Your task to perform on an android device: Empty the shopping cart on ebay.com. Search for usb-a to usb-b on ebay.com, select the first entry, and add it to the cart. Image 0: 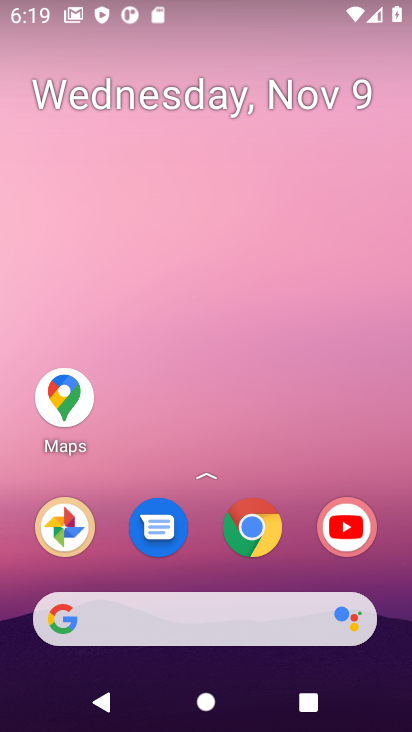
Step 0: click (257, 522)
Your task to perform on an android device: Empty the shopping cart on ebay.com. Search for usb-a to usb-b on ebay.com, select the first entry, and add it to the cart. Image 1: 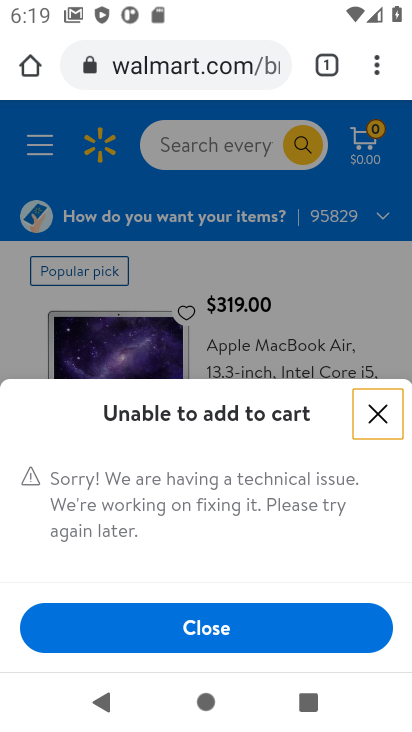
Step 1: click (190, 57)
Your task to perform on an android device: Empty the shopping cart on ebay.com. Search for usb-a to usb-b on ebay.com, select the first entry, and add it to the cart. Image 2: 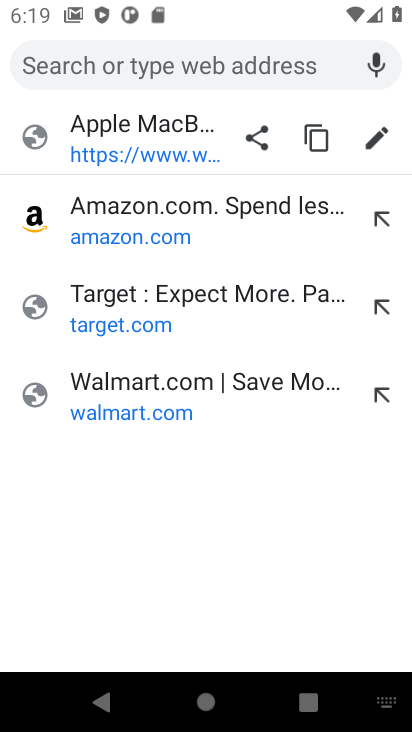
Step 2: type "ebay.com"
Your task to perform on an android device: Empty the shopping cart on ebay.com. Search for usb-a to usb-b on ebay.com, select the first entry, and add it to the cart. Image 3: 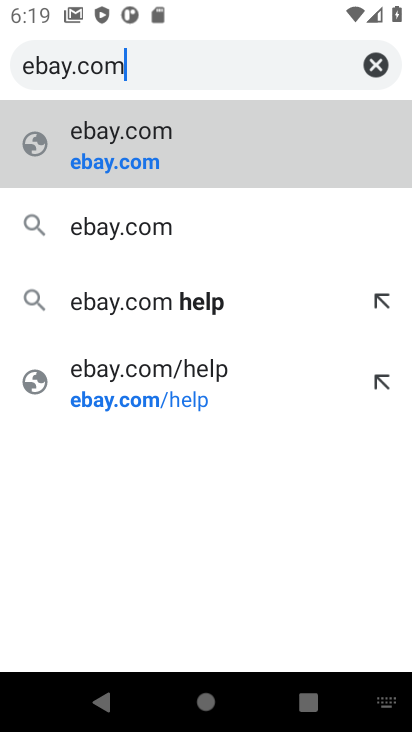
Step 3: click (100, 159)
Your task to perform on an android device: Empty the shopping cart on ebay.com. Search for usb-a to usb-b on ebay.com, select the first entry, and add it to the cart. Image 4: 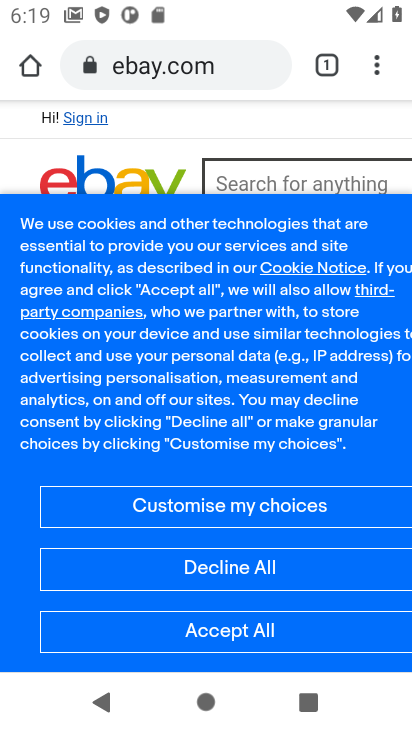
Step 4: drag from (187, 232) to (162, 382)
Your task to perform on an android device: Empty the shopping cart on ebay.com. Search for usb-a to usb-b on ebay.com, select the first entry, and add it to the cart. Image 5: 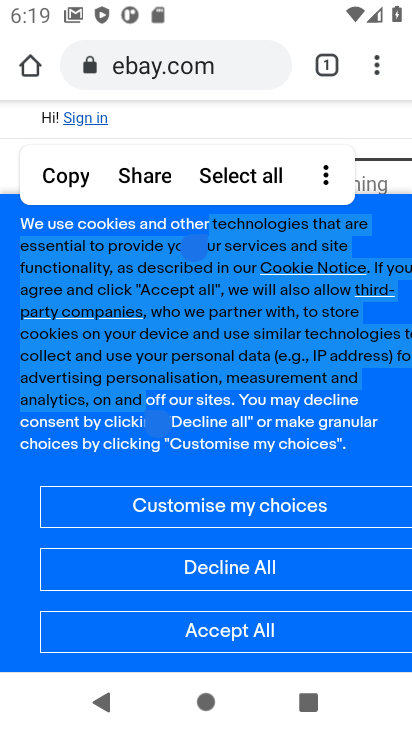
Step 5: click (368, 133)
Your task to perform on an android device: Empty the shopping cart on ebay.com. Search for usb-a to usb-b on ebay.com, select the first entry, and add it to the cart. Image 6: 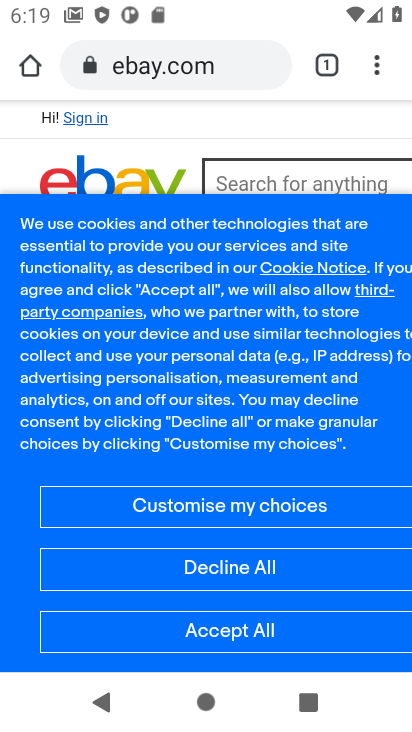
Step 6: drag from (368, 133) to (19, 130)
Your task to perform on an android device: Empty the shopping cart on ebay.com. Search for usb-a to usb-b on ebay.com, select the first entry, and add it to the cart. Image 7: 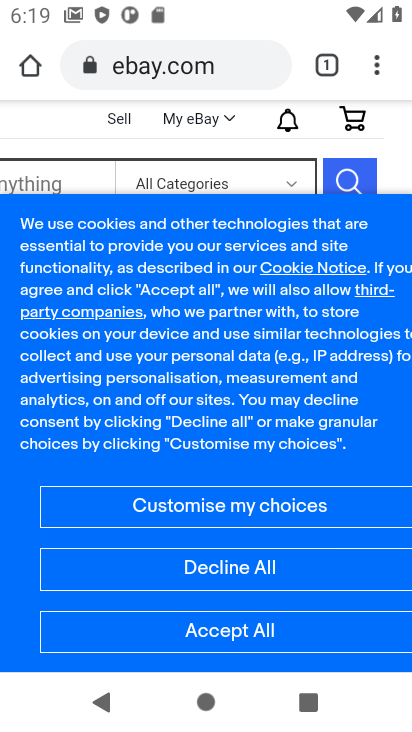
Step 7: click (355, 123)
Your task to perform on an android device: Empty the shopping cart on ebay.com. Search for usb-a to usb-b on ebay.com, select the first entry, and add it to the cart. Image 8: 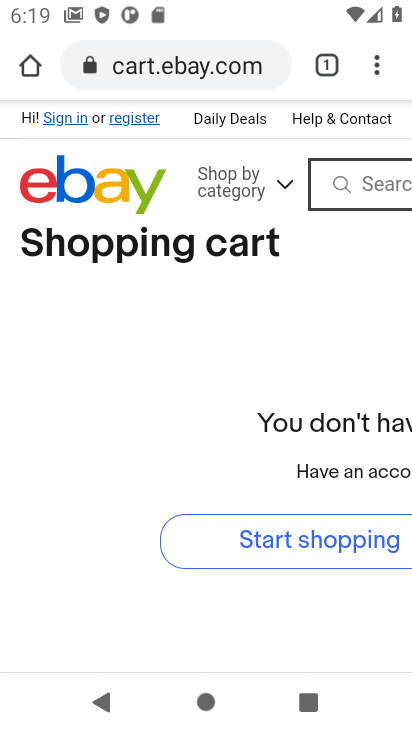
Step 8: drag from (242, 356) to (6, 407)
Your task to perform on an android device: Empty the shopping cart on ebay.com. Search for usb-a to usb-b on ebay.com, select the first entry, and add it to the cart. Image 9: 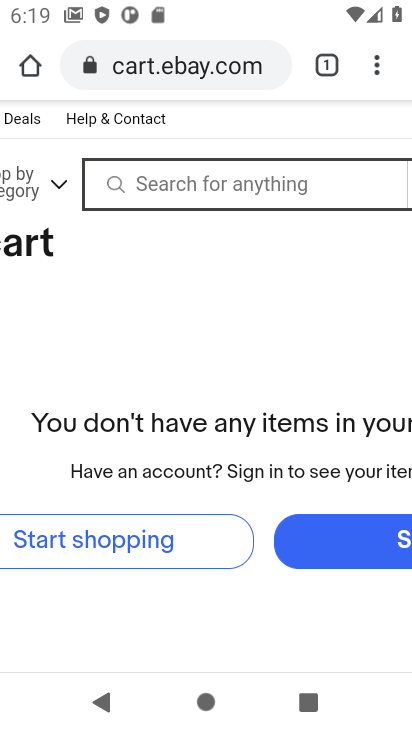
Step 9: click (202, 182)
Your task to perform on an android device: Empty the shopping cart on ebay.com. Search for usb-a to usb-b on ebay.com, select the first entry, and add it to the cart. Image 10: 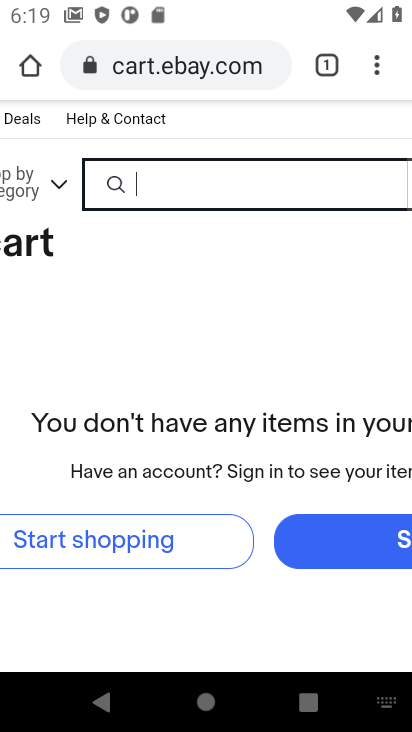
Step 10: type "usb-a to usb-b"
Your task to perform on an android device: Empty the shopping cart on ebay.com. Search for usb-a to usb-b on ebay.com, select the first entry, and add it to the cart. Image 11: 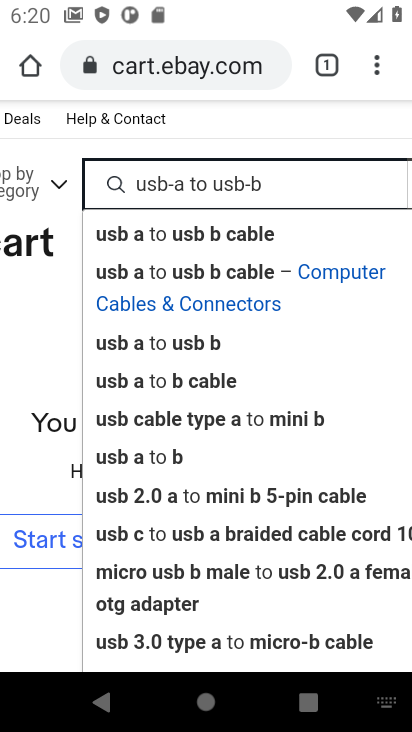
Step 11: click (198, 344)
Your task to perform on an android device: Empty the shopping cart on ebay.com. Search for usb-a to usb-b on ebay.com, select the first entry, and add it to the cart. Image 12: 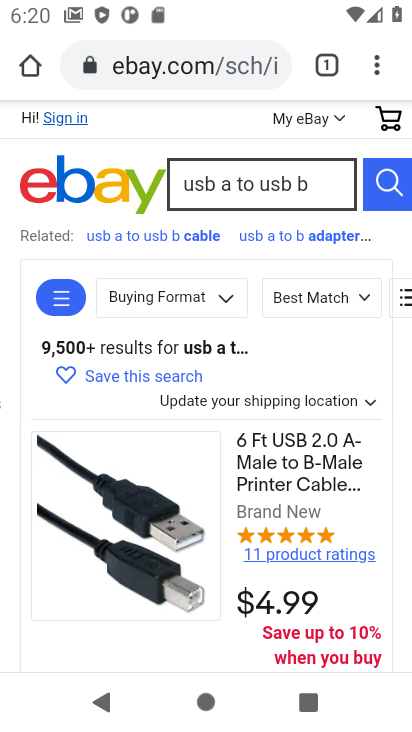
Step 12: click (123, 570)
Your task to perform on an android device: Empty the shopping cart on ebay.com. Search for usb-a to usb-b on ebay.com, select the first entry, and add it to the cart. Image 13: 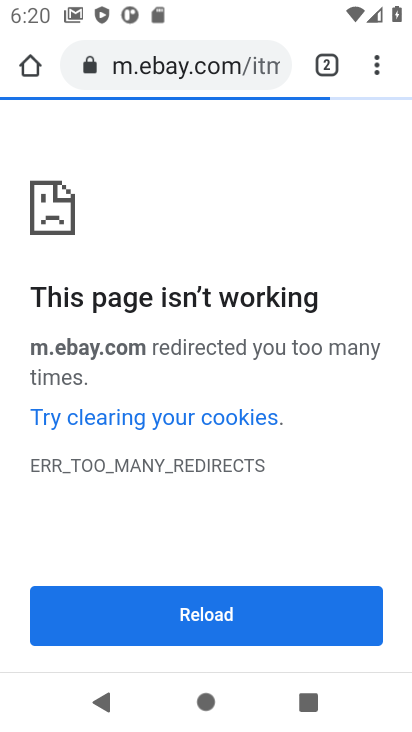
Step 13: task complete